Your task to perform on an android device: toggle improve location accuracy Image 0: 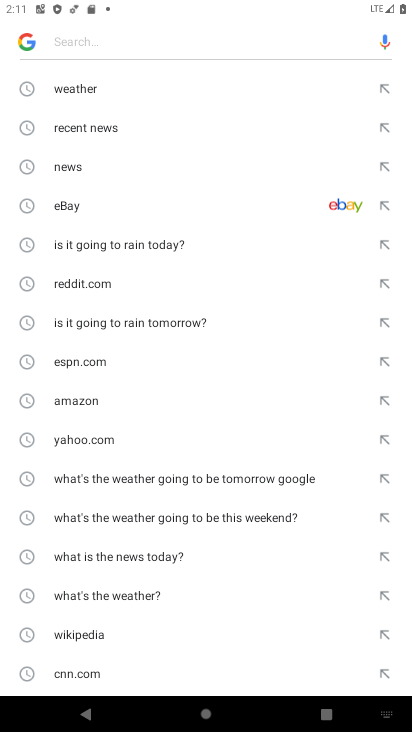
Step 0: press back button
Your task to perform on an android device: toggle improve location accuracy Image 1: 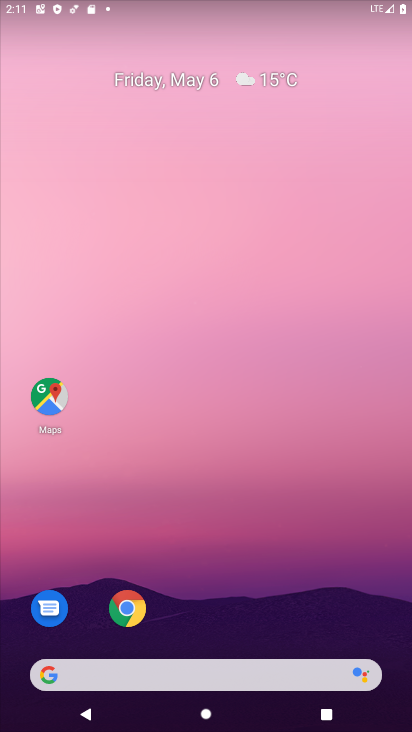
Step 1: drag from (239, 604) to (205, 26)
Your task to perform on an android device: toggle improve location accuracy Image 2: 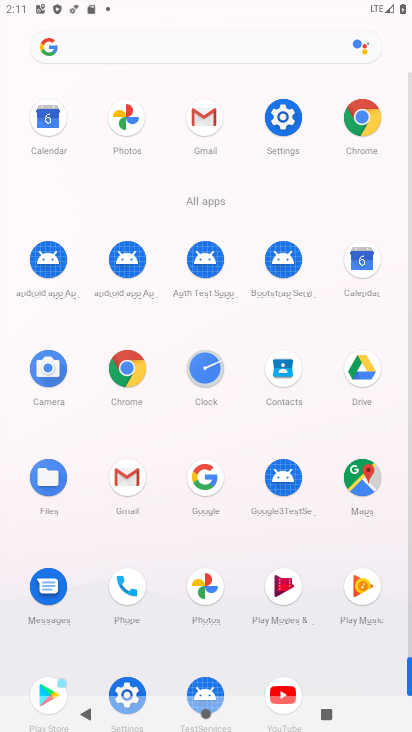
Step 2: click (281, 118)
Your task to perform on an android device: toggle improve location accuracy Image 3: 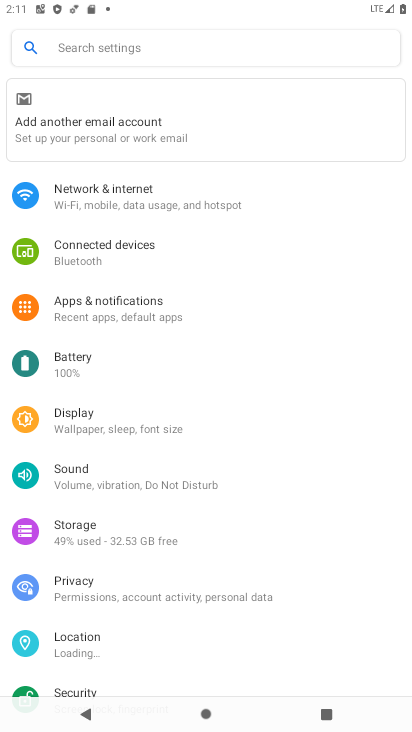
Step 3: drag from (134, 516) to (184, 421)
Your task to perform on an android device: toggle improve location accuracy Image 4: 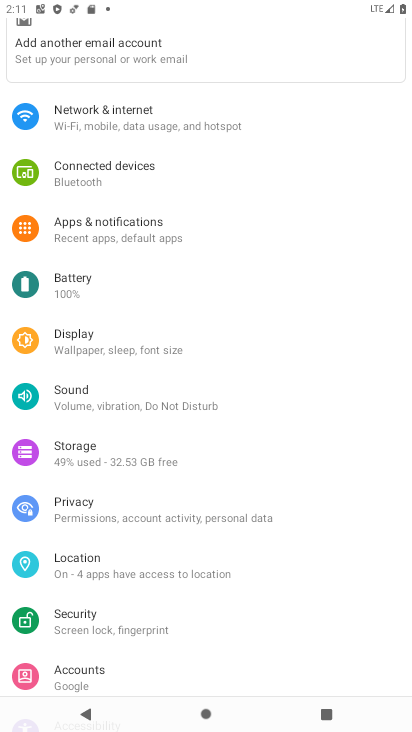
Step 4: click (71, 556)
Your task to perform on an android device: toggle improve location accuracy Image 5: 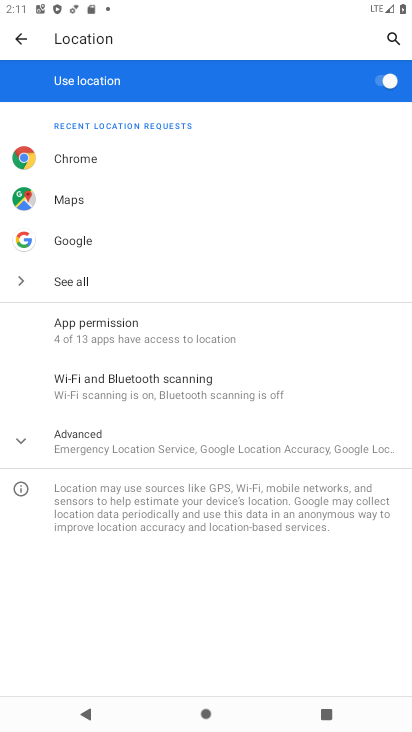
Step 5: click (75, 443)
Your task to perform on an android device: toggle improve location accuracy Image 6: 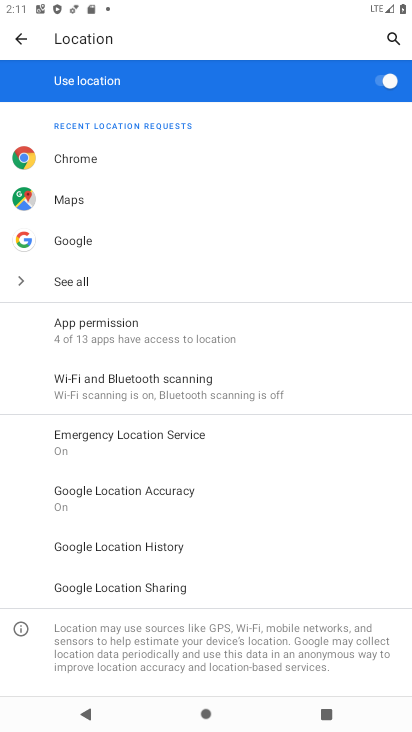
Step 6: click (95, 497)
Your task to perform on an android device: toggle improve location accuracy Image 7: 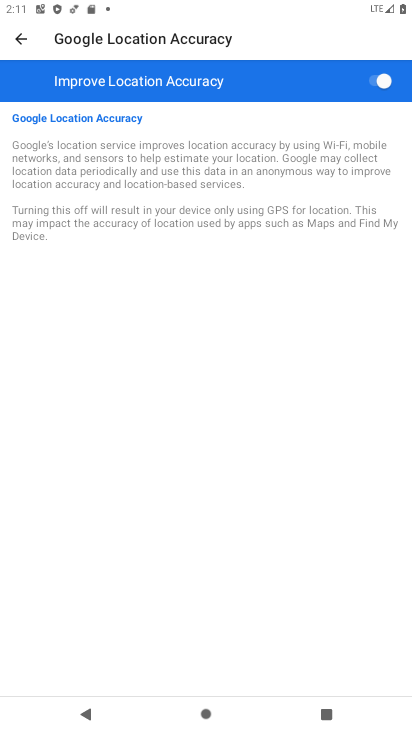
Step 7: click (382, 86)
Your task to perform on an android device: toggle improve location accuracy Image 8: 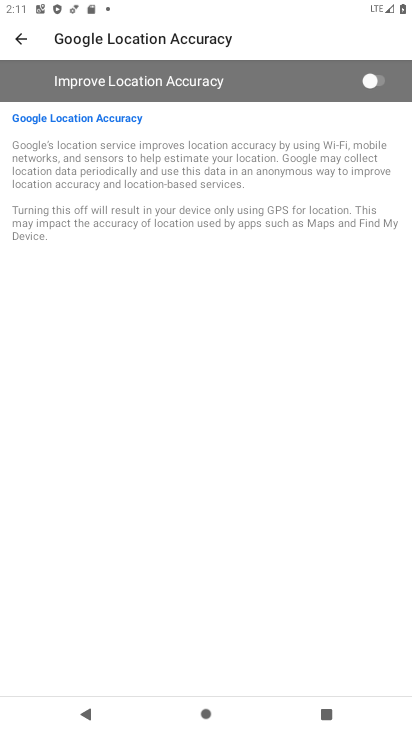
Step 8: task complete